Your task to perform on an android device: open a bookmark in the chrome app Image 0: 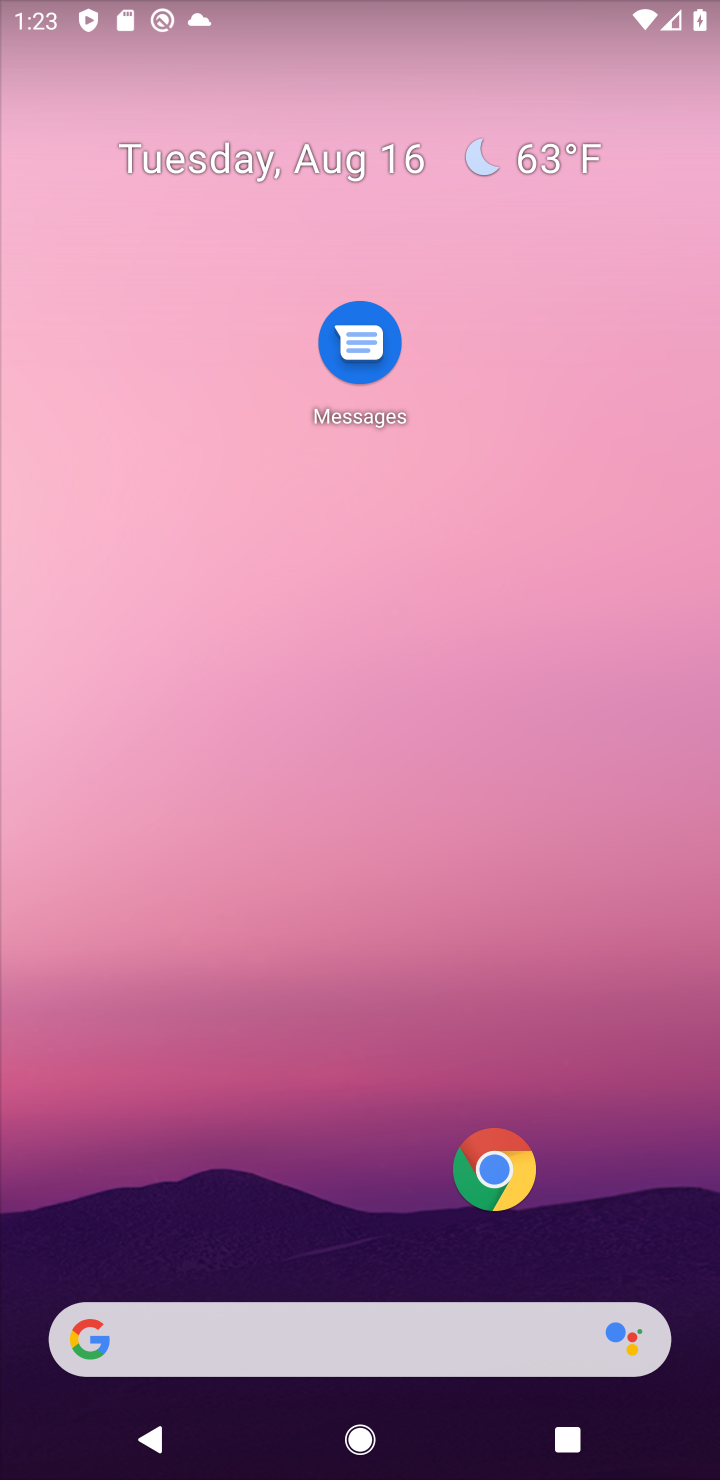
Step 0: click (495, 1168)
Your task to perform on an android device: open a bookmark in the chrome app Image 1: 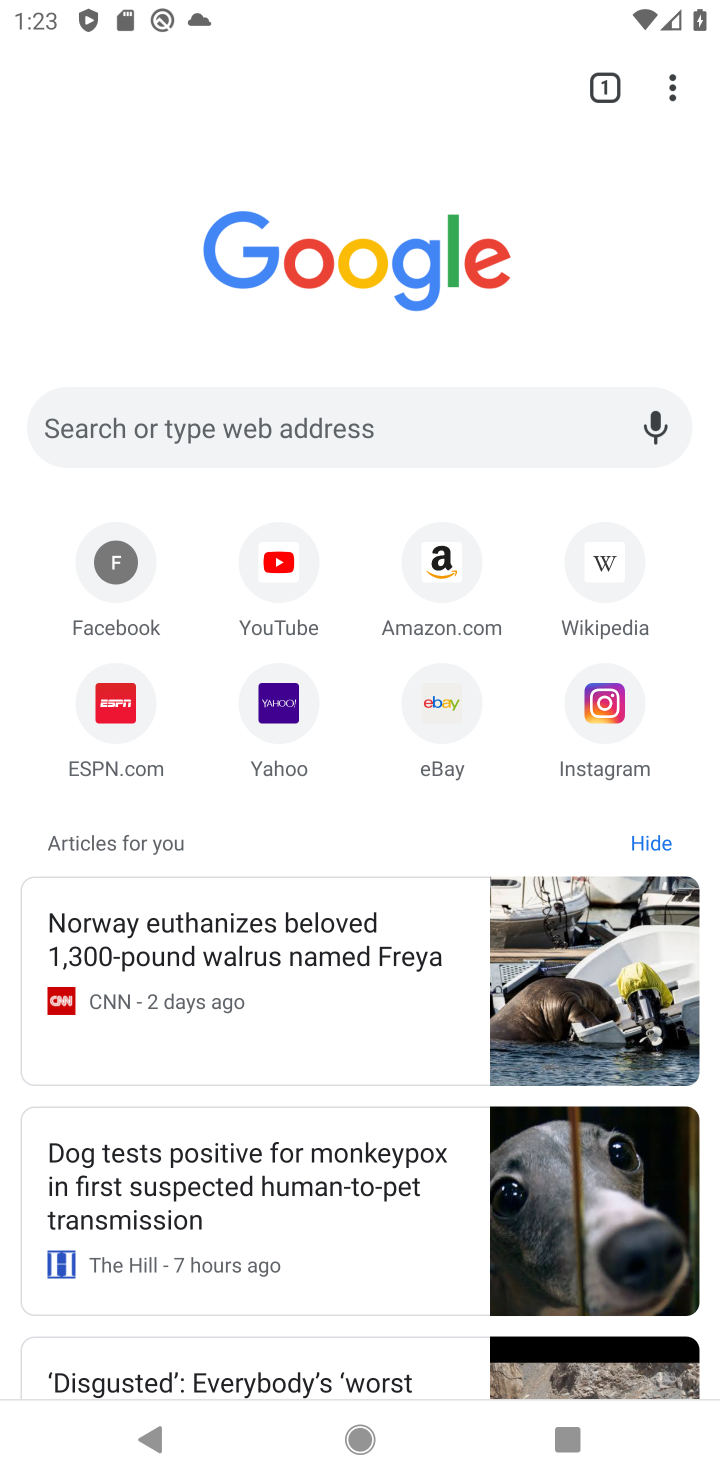
Step 1: click (672, 86)
Your task to perform on an android device: open a bookmark in the chrome app Image 2: 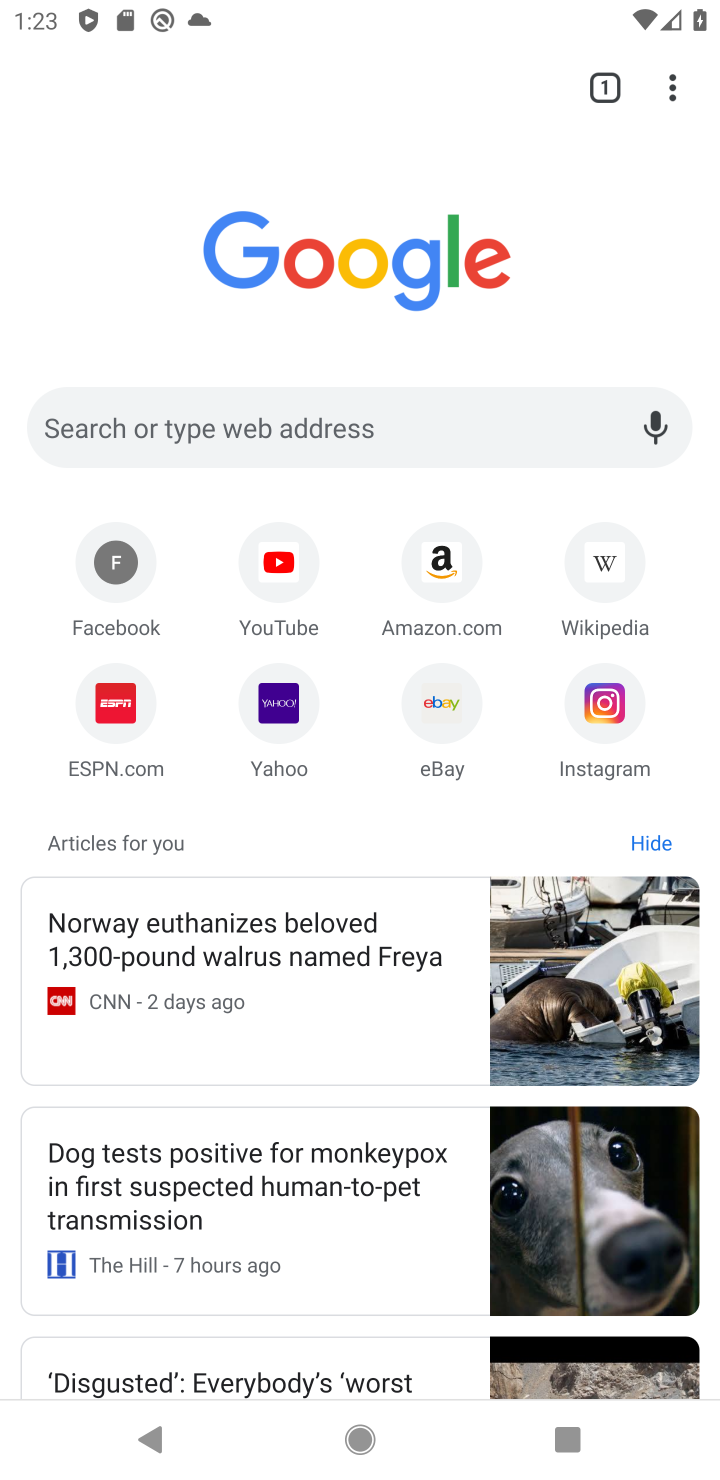
Step 2: click (676, 89)
Your task to perform on an android device: open a bookmark in the chrome app Image 3: 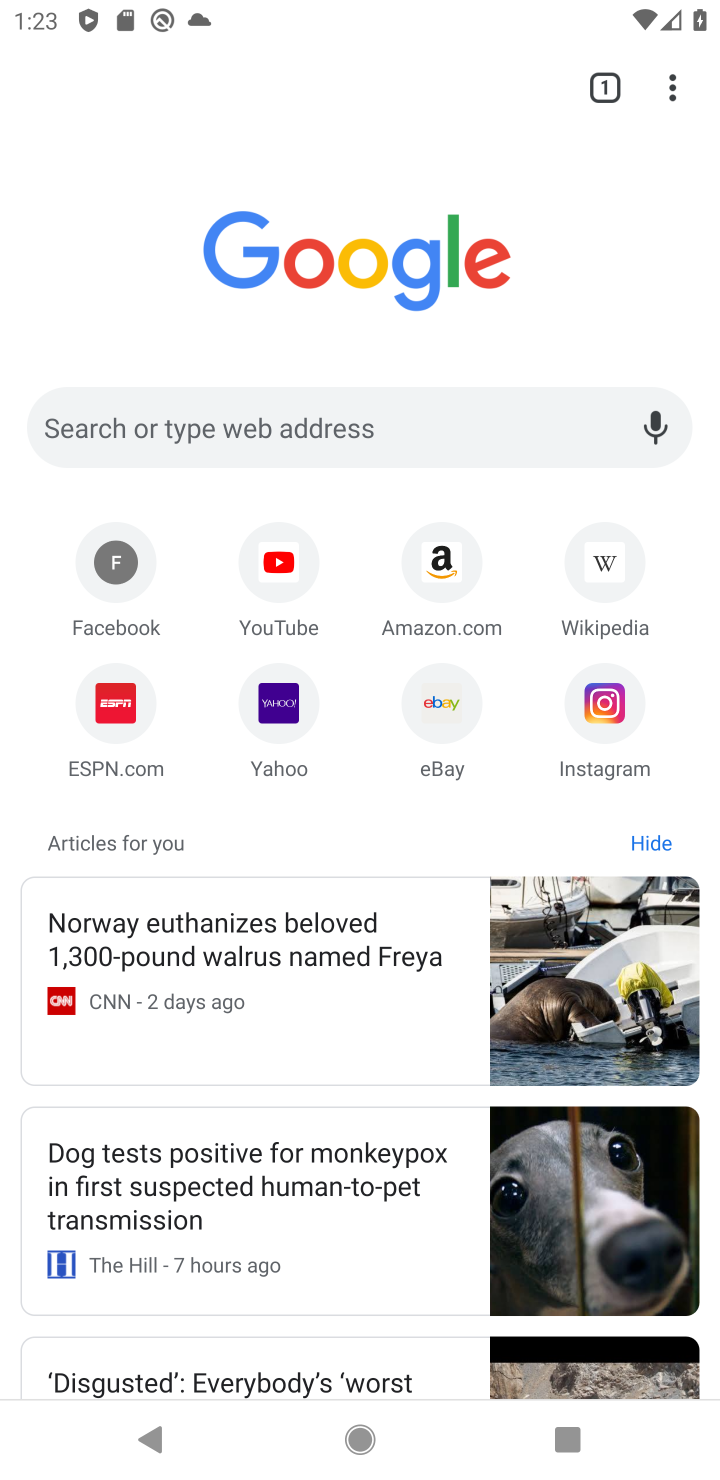
Step 3: click (683, 94)
Your task to perform on an android device: open a bookmark in the chrome app Image 4: 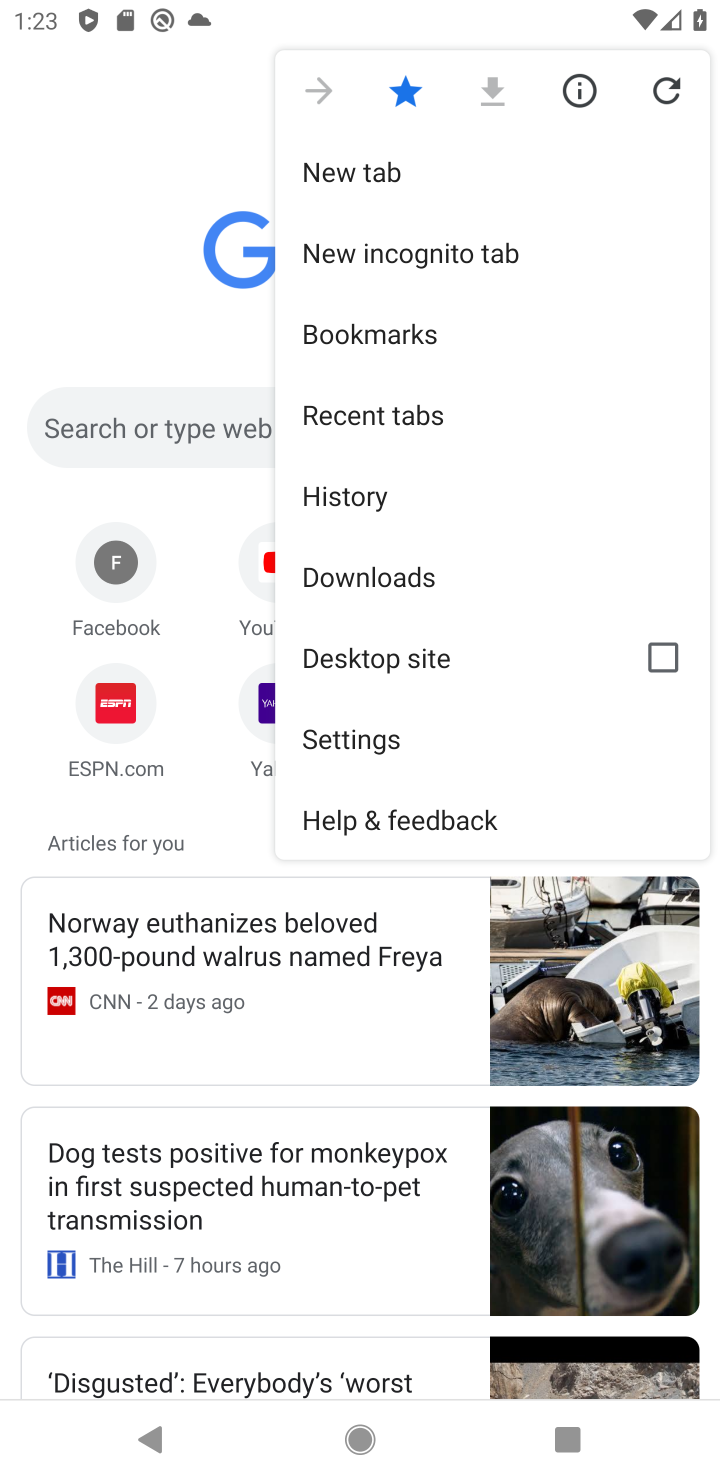
Step 4: click (354, 331)
Your task to perform on an android device: open a bookmark in the chrome app Image 5: 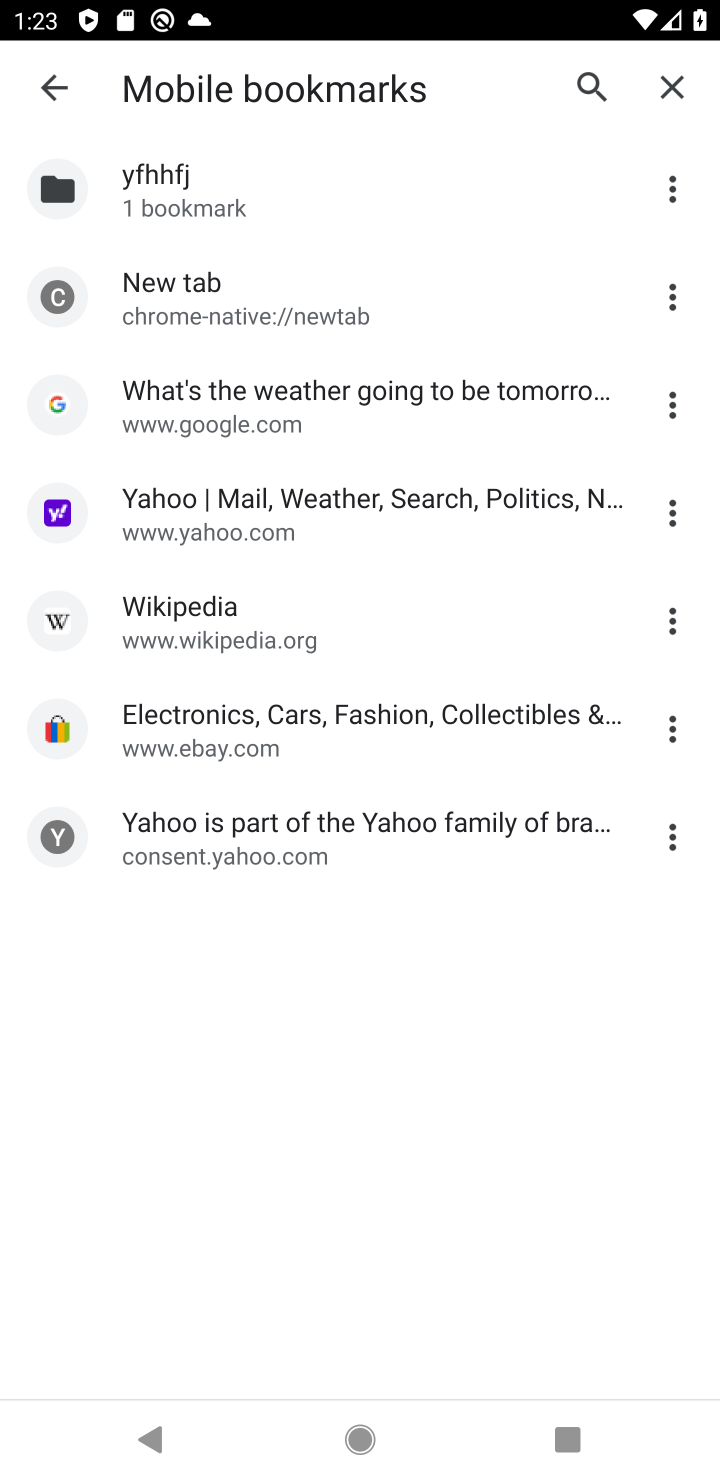
Step 5: task complete